Your task to perform on an android device: uninstall "TextNow: Call + Text Unlimited" Image 0: 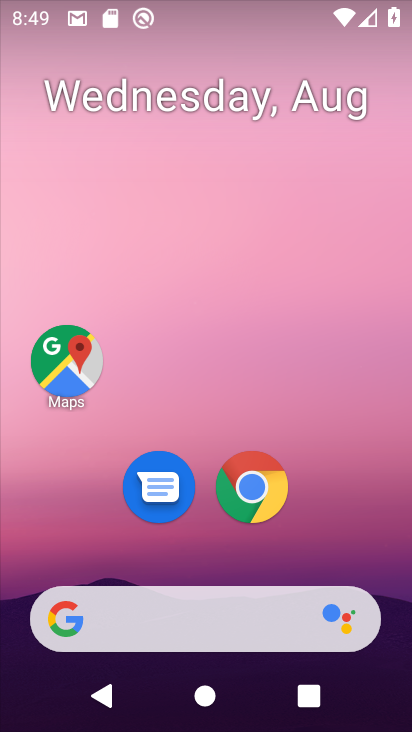
Step 0: drag from (214, 575) to (280, 2)
Your task to perform on an android device: uninstall "TextNow: Call + Text Unlimited" Image 1: 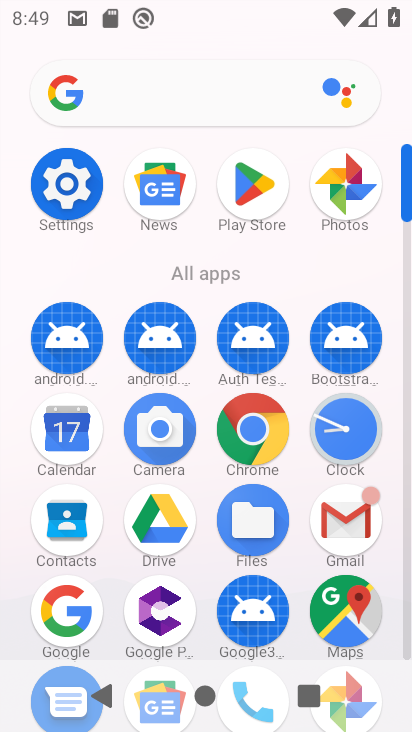
Step 1: click (261, 175)
Your task to perform on an android device: uninstall "TextNow: Call + Text Unlimited" Image 2: 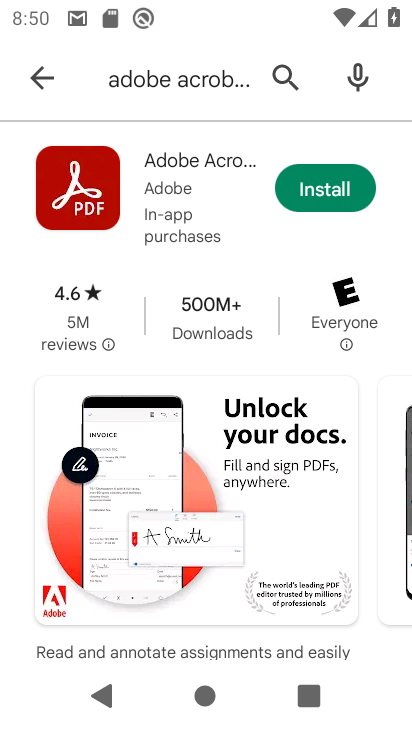
Step 2: click (287, 77)
Your task to perform on an android device: uninstall "TextNow: Call + Text Unlimited" Image 3: 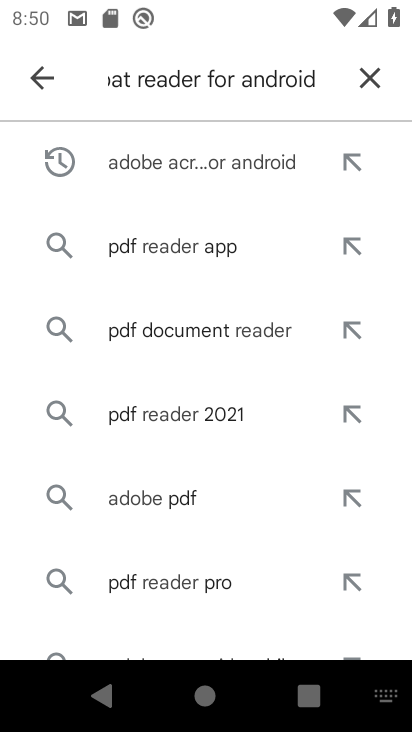
Step 3: click (376, 88)
Your task to perform on an android device: uninstall "TextNow: Call + Text Unlimited" Image 4: 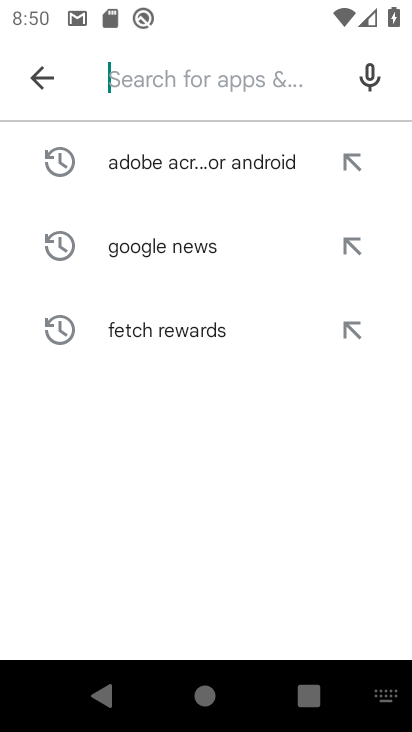
Step 4: click (147, 92)
Your task to perform on an android device: uninstall "TextNow: Call + Text Unlimited" Image 5: 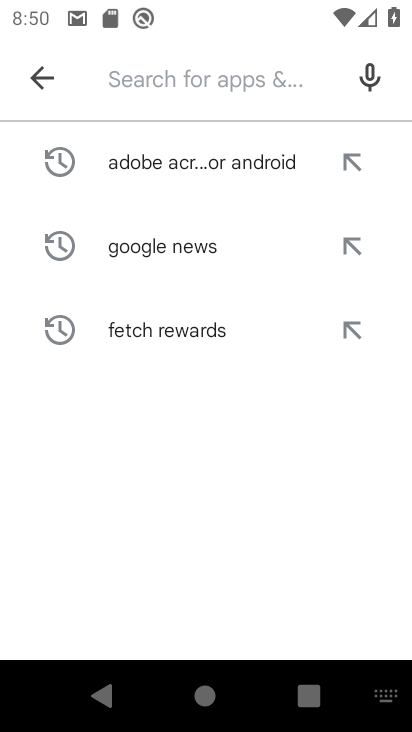
Step 5: type "text now"
Your task to perform on an android device: uninstall "TextNow: Call + Text Unlimited" Image 6: 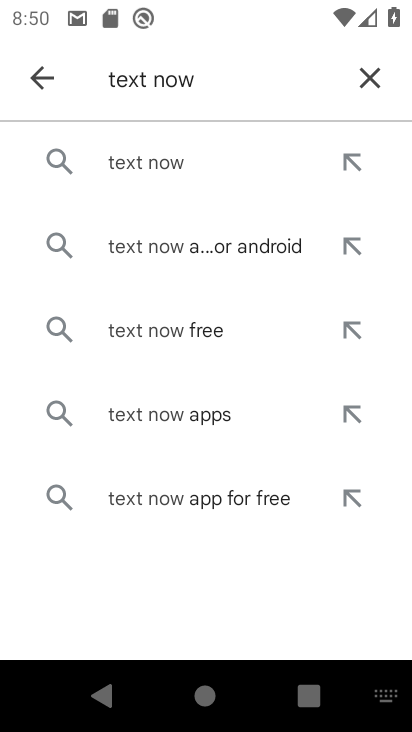
Step 6: click (165, 173)
Your task to perform on an android device: uninstall "TextNow: Call + Text Unlimited" Image 7: 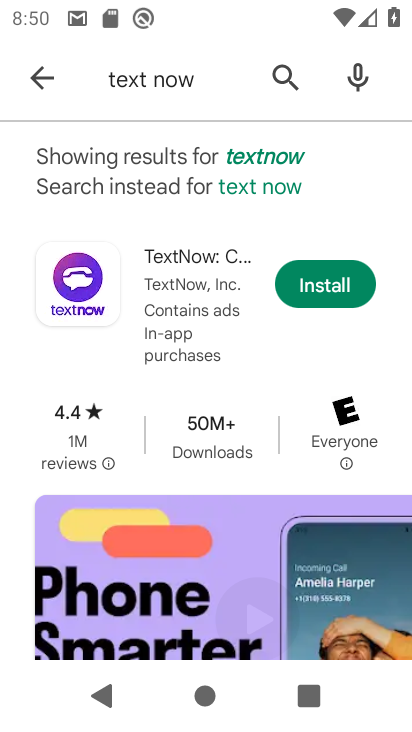
Step 7: task complete